Your task to perform on an android device: Search for Italian restaurants on Maps Image 0: 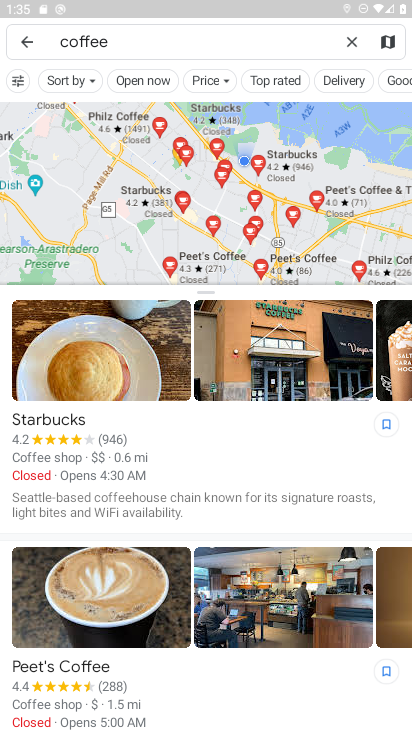
Step 0: press home button
Your task to perform on an android device: Search for Italian restaurants on Maps Image 1: 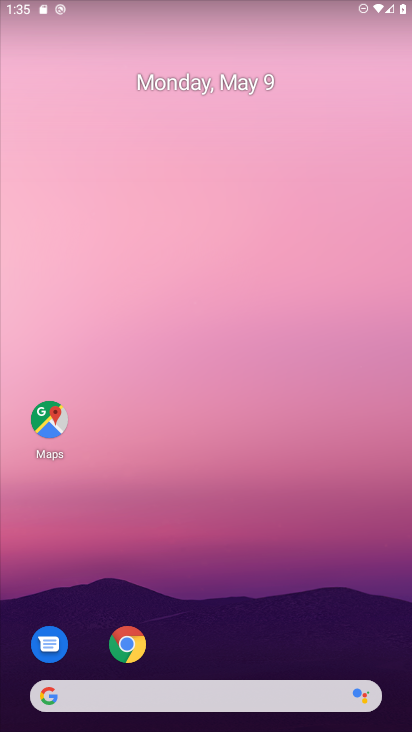
Step 1: click (42, 437)
Your task to perform on an android device: Search for Italian restaurants on Maps Image 2: 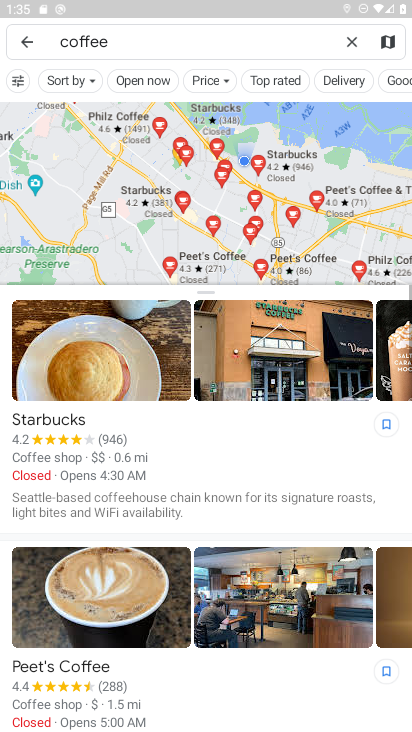
Step 2: click (355, 43)
Your task to perform on an android device: Search for Italian restaurants on Maps Image 3: 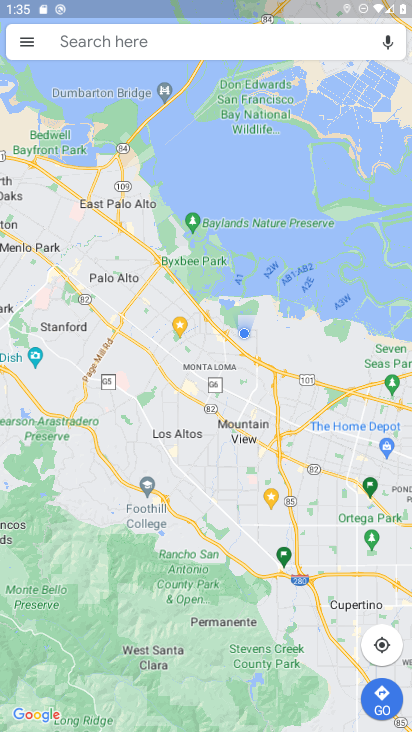
Step 3: click (256, 49)
Your task to perform on an android device: Search for Italian restaurants on Maps Image 4: 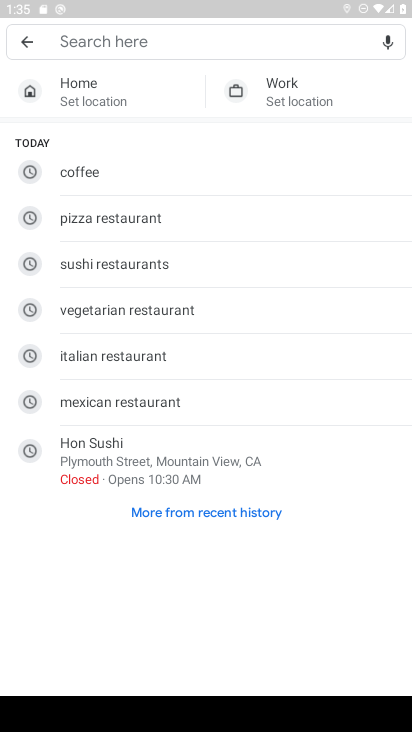
Step 4: click (145, 356)
Your task to perform on an android device: Search for Italian restaurants on Maps Image 5: 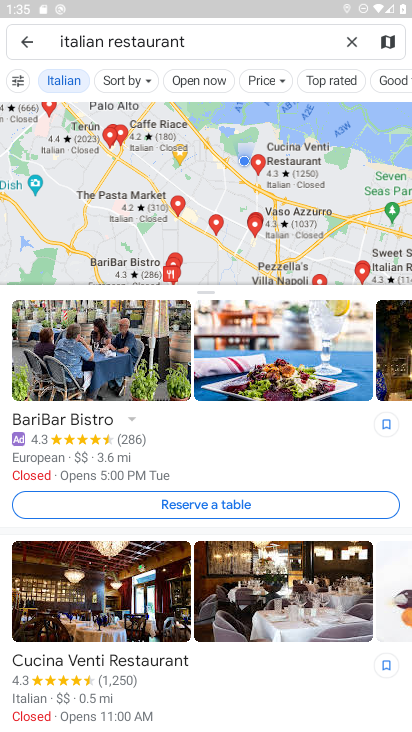
Step 5: task complete